Your task to perform on an android device: Open Chrome and go to settings Image 0: 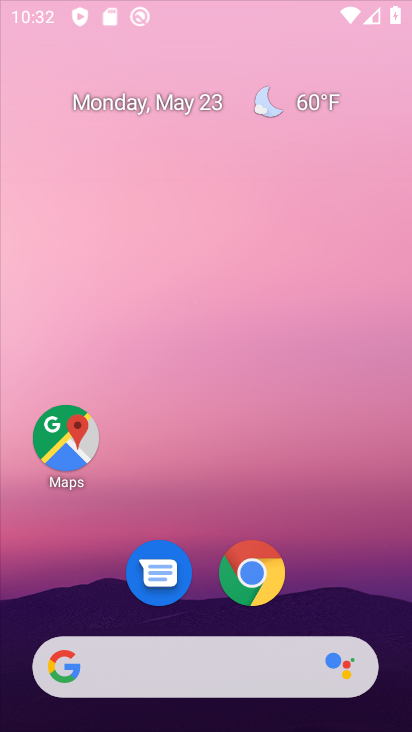
Step 0: drag from (296, 545) to (260, 5)
Your task to perform on an android device: Open Chrome and go to settings Image 1: 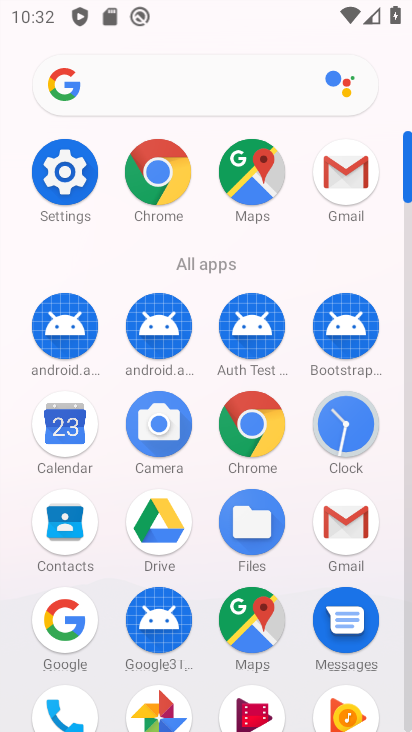
Step 1: drag from (1, 511) to (1, 233)
Your task to perform on an android device: Open Chrome and go to settings Image 2: 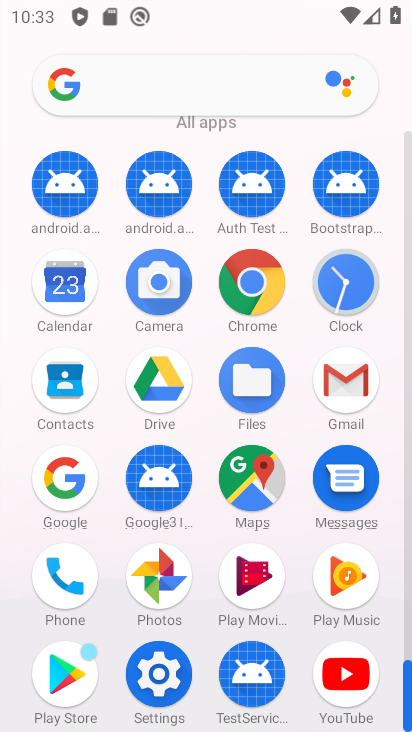
Step 2: click (251, 275)
Your task to perform on an android device: Open Chrome and go to settings Image 3: 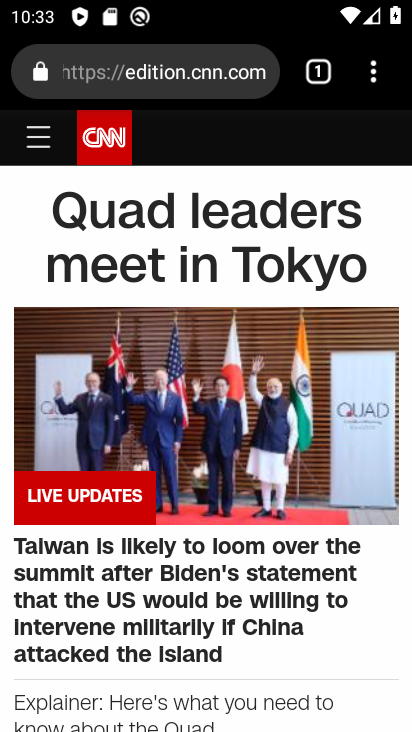
Step 3: task complete